Your task to perform on an android device: Search for jbl charge 4 on amazon, select the first entry, add it to the cart, then select checkout. Image 0: 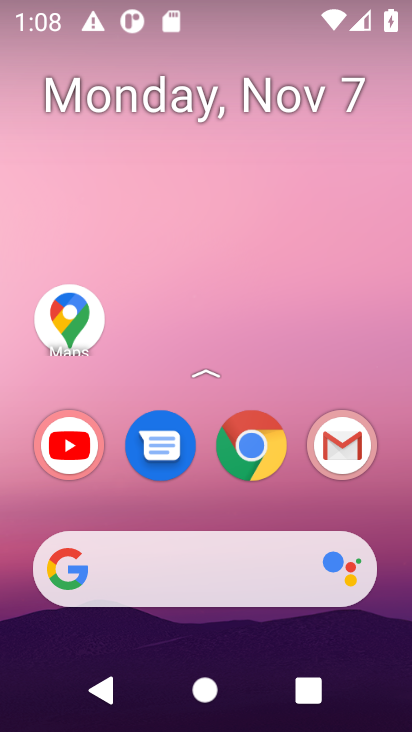
Step 0: click (248, 433)
Your task to perform on an android device: Search for jbl charge 4 on amazon, select the first entry, add it to the cart, then select checkout. Image 1: 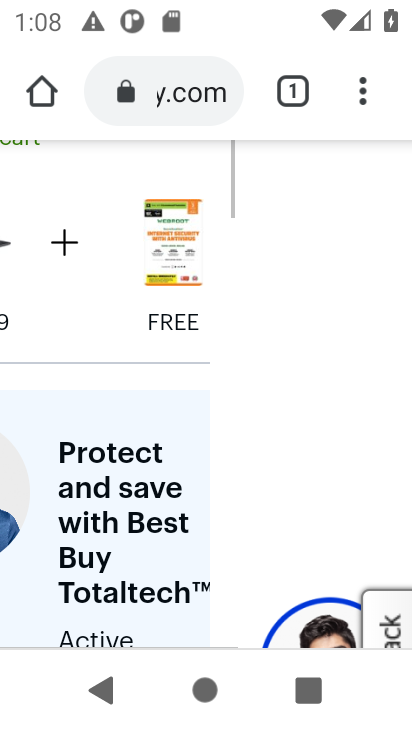
Step 1: click (182, 85)
Your task to perform on an android device: Search for jbl charge 4 on amazon, select the first entry, add it to the cart, then select checkout. Image 2: 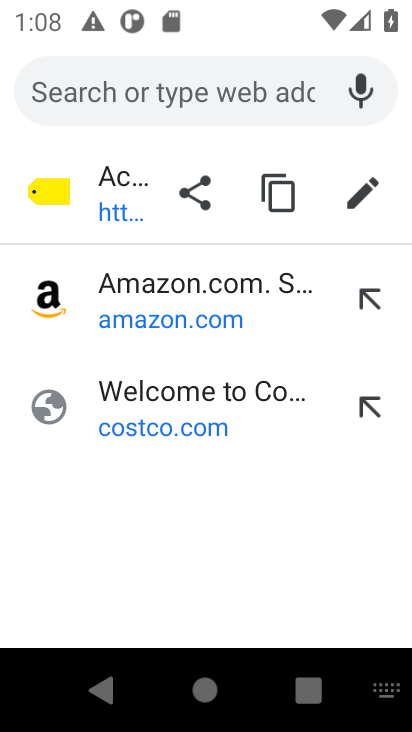
Step 2: click (182, 293)
Your task to perform on an android device: Search for jbl charge 4 on amazon, select the first entry, add it to the cart, then select checkout. Image 3: 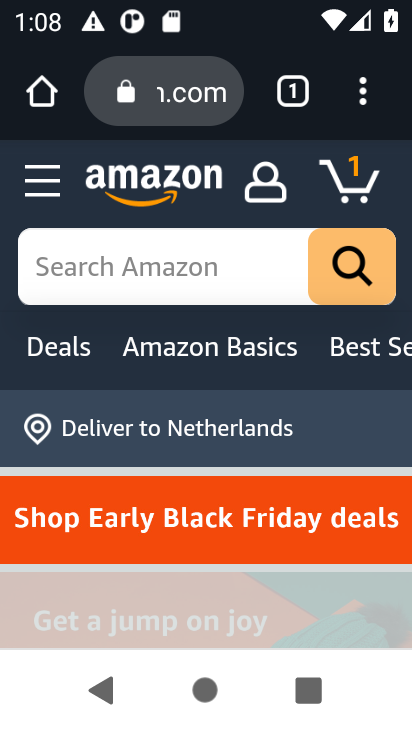
Step 3: click (219, 282)
Your task to perform on an android device: Search for jbl charge 4 on amazon, select the first entry, add it to the cart, then select checkout. Image 4: 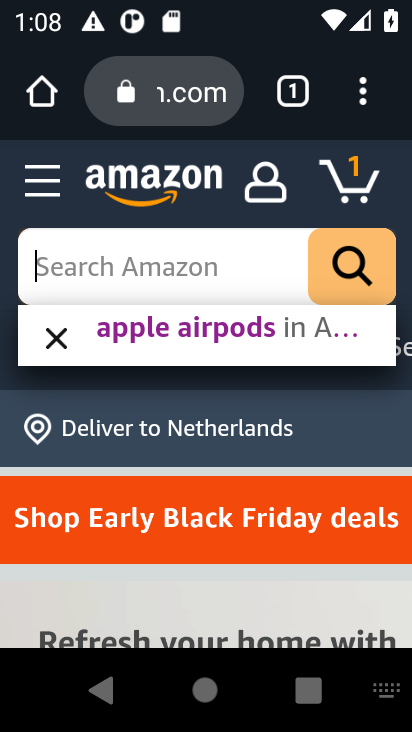
Step 4: type "jbl charge 4"
Your task to perform on an android device: Search for jbl charge 4 on amazon, select the first entry, add it to the cart, then select checkout. Image 5: 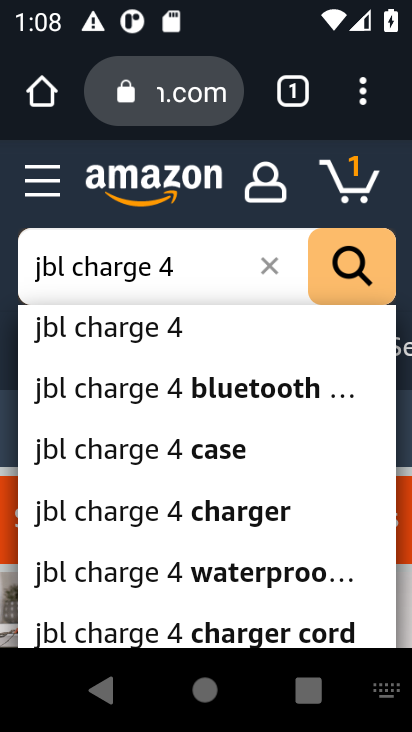
Step 5: click (117, 318)
Your task to perform on an android device: Search for jbl charge 4 on amazon, select the first entry, add it to the cart, then select checkout. Image 6: 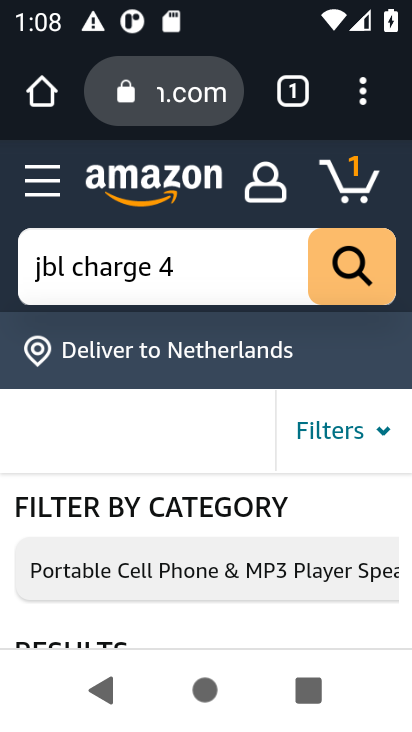
Step 6: drag from (184, 585) to (166, 266)
Your task to perform on an android device: Search for jbl charge 4 on amazon, select the first entry, add it to the cart, then select checkout. Image 7: 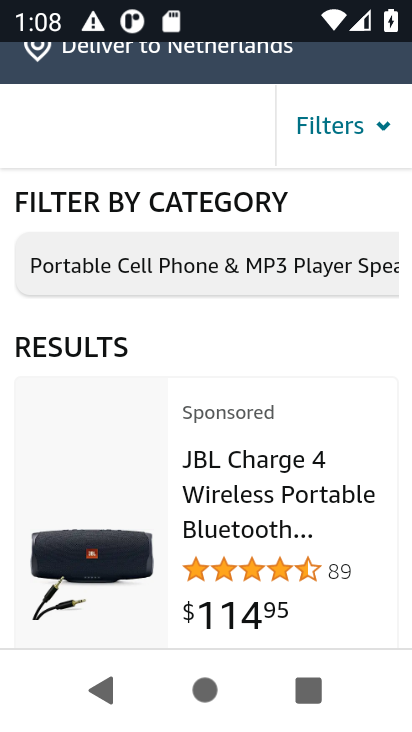
Step 7: click (103, 544)
Your task to perform on an android device: Search for jbl charge 4 on amazon, select the first entry, add it to the cart, then select checkout. Image 8: 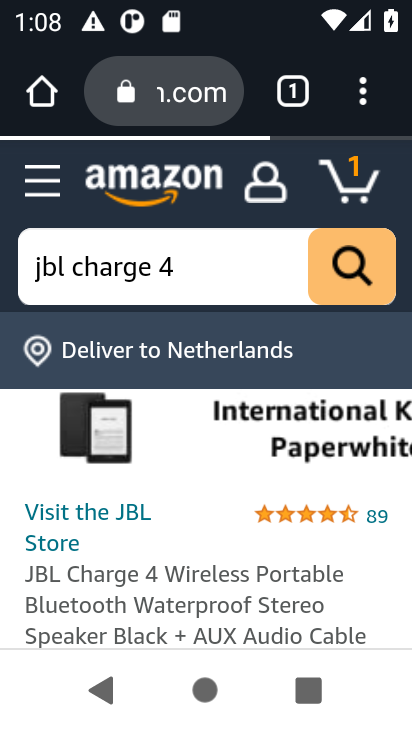
Step 8: drag from (267, 508) to (322, 148)
Your task to perform on an android device: Search for jbl charge 4 on amazon, select the first entry, add it to the cart, then select checkout. Image 9: 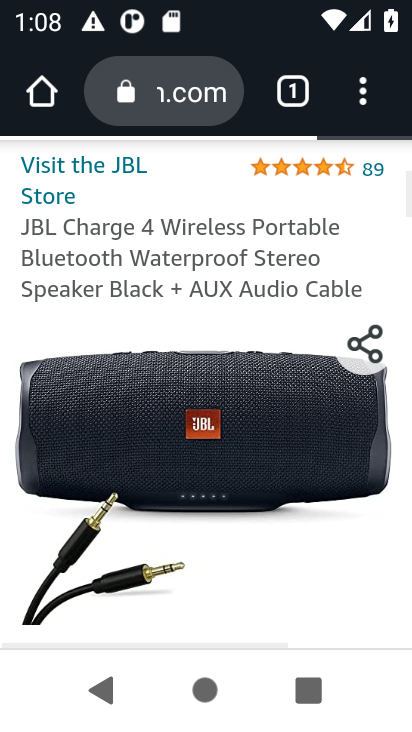
Step 9: drag from (309, 533) to (288, 166)
Your task to perform on an android device: Search for jbl charge 4 on amazon, select the first entry, add it to the cart, then select checkout. Image 10: 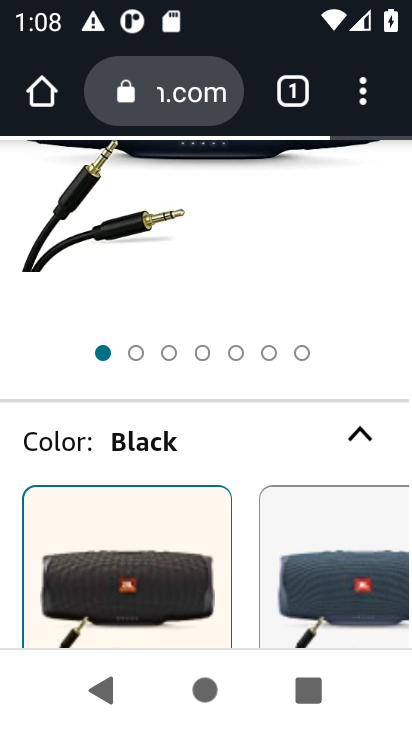
Step 10: drag from (320, 484) to (304, 157)
Your task to perform on an android device: Search for jbl charge 4 on amazon, select the first entry, add it to the cart, then select checkout. Image 11: 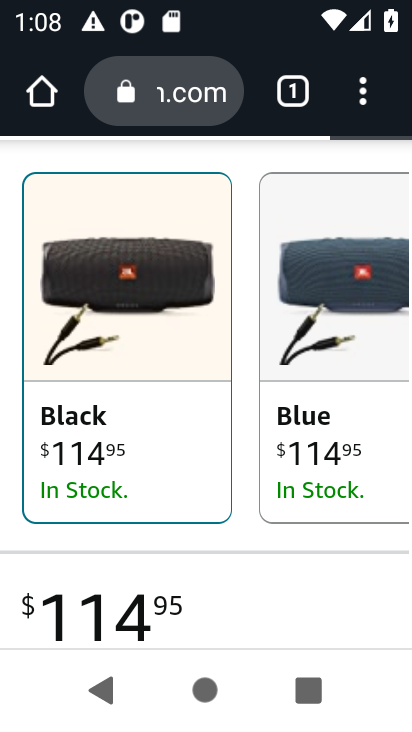
Step 11: drag from (243, 491) to (262, 226)
Your task to perform on an android device: Search for jbl charge 4 on amazon, select the first entry, add it to the cart, then select checkout. Image 12: 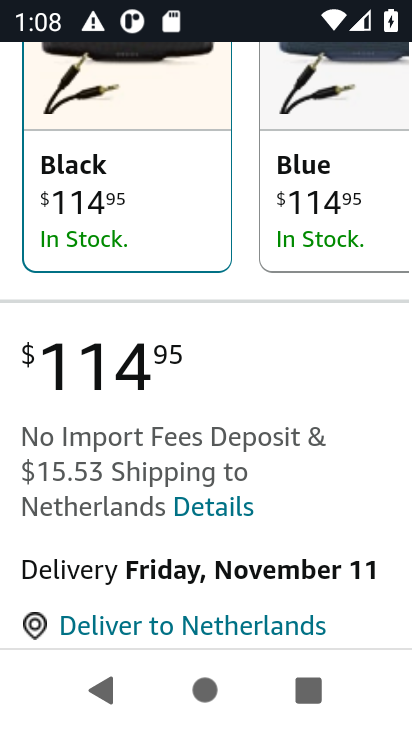
Step 12: drag from (288, 519) to (387, 262)
Your task to perform on an android device: Search for jbl charge 4 on amazon, select the first entry, add it to the cart, then select checkout. Image 13: 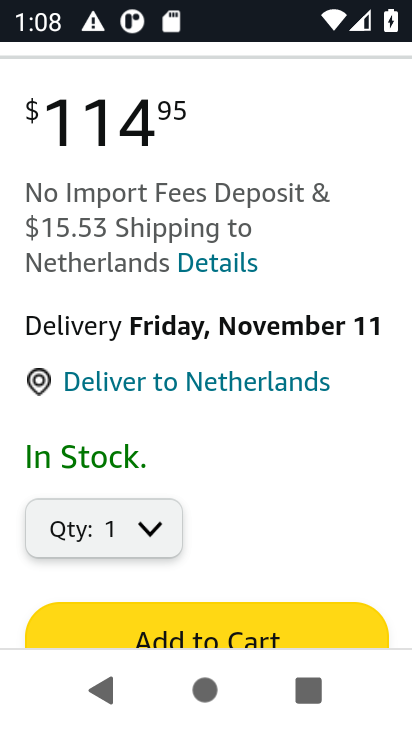
Step 13: drag from (300, 524) to (333, 268)
Your task to perform on an android device: Search for jbl charge 4 on amazon, select the first entry, add it to the cart, then select checkout. Image 14: 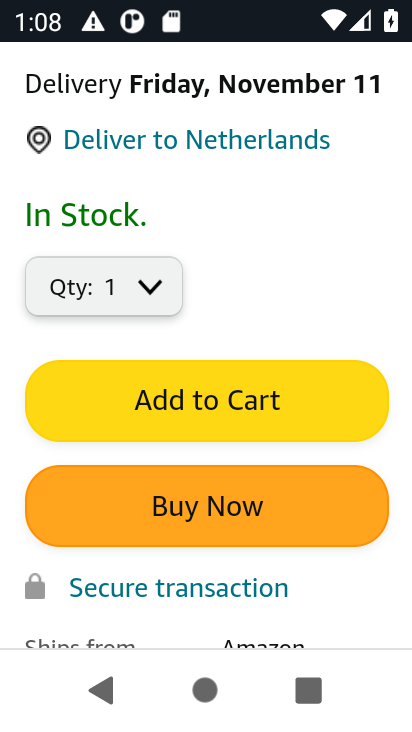
Step 14: click (247, 390)
Your task to perform on an android device: Search for jbl charge 4 on amazon, select the first entry, add it to the cart, then select checkout. Image 15: 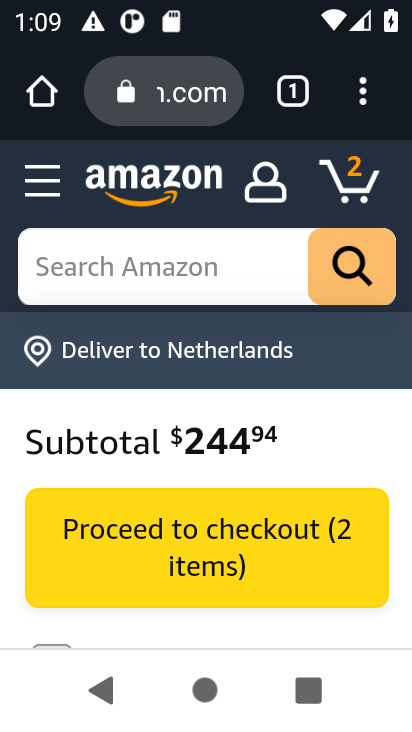
Step 15: click (274, 531)
Your task to perform on an android device: Search for jbl charge 4 on amazon, select the first entry, add it to the cart, then select checkout. Image 16: 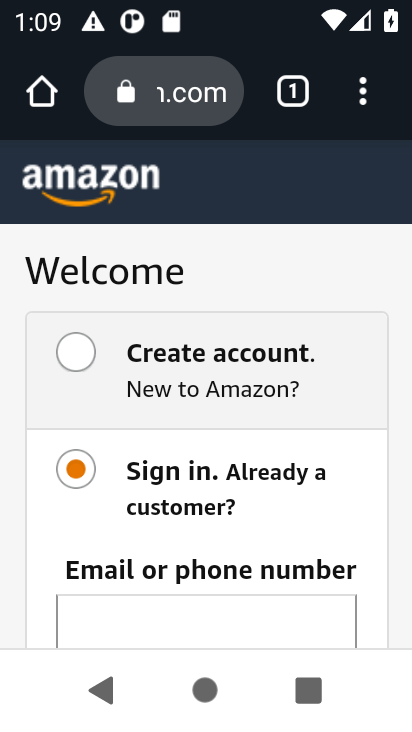
Step 16: task complete